Your task to perform on an android device: turn notification dots off Image 0: 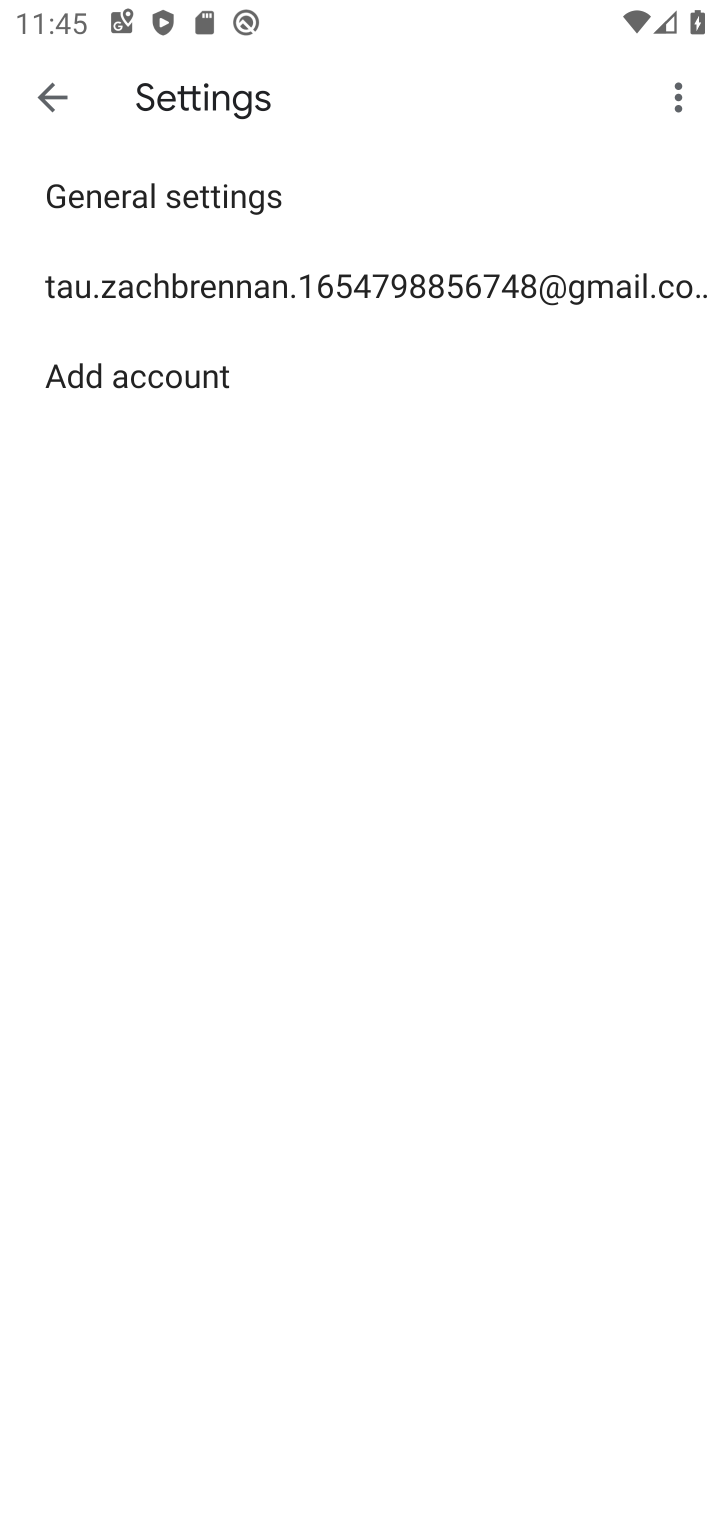
Step 0: press home button
Your task to perform on an android device: turn notification dots off Image 1: 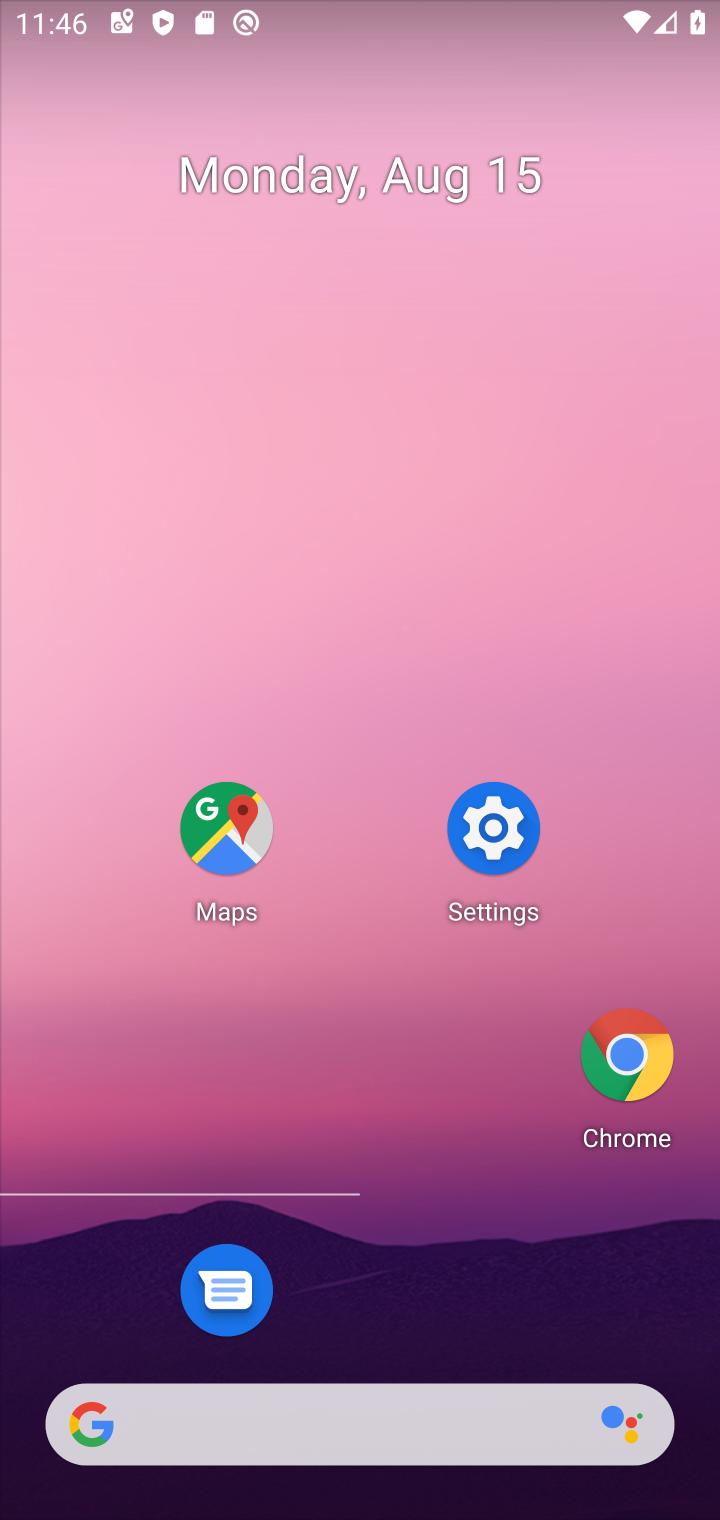
Step 1: click (498, 824)
Your task to perform on an android device: turn notification dots off Image 2: 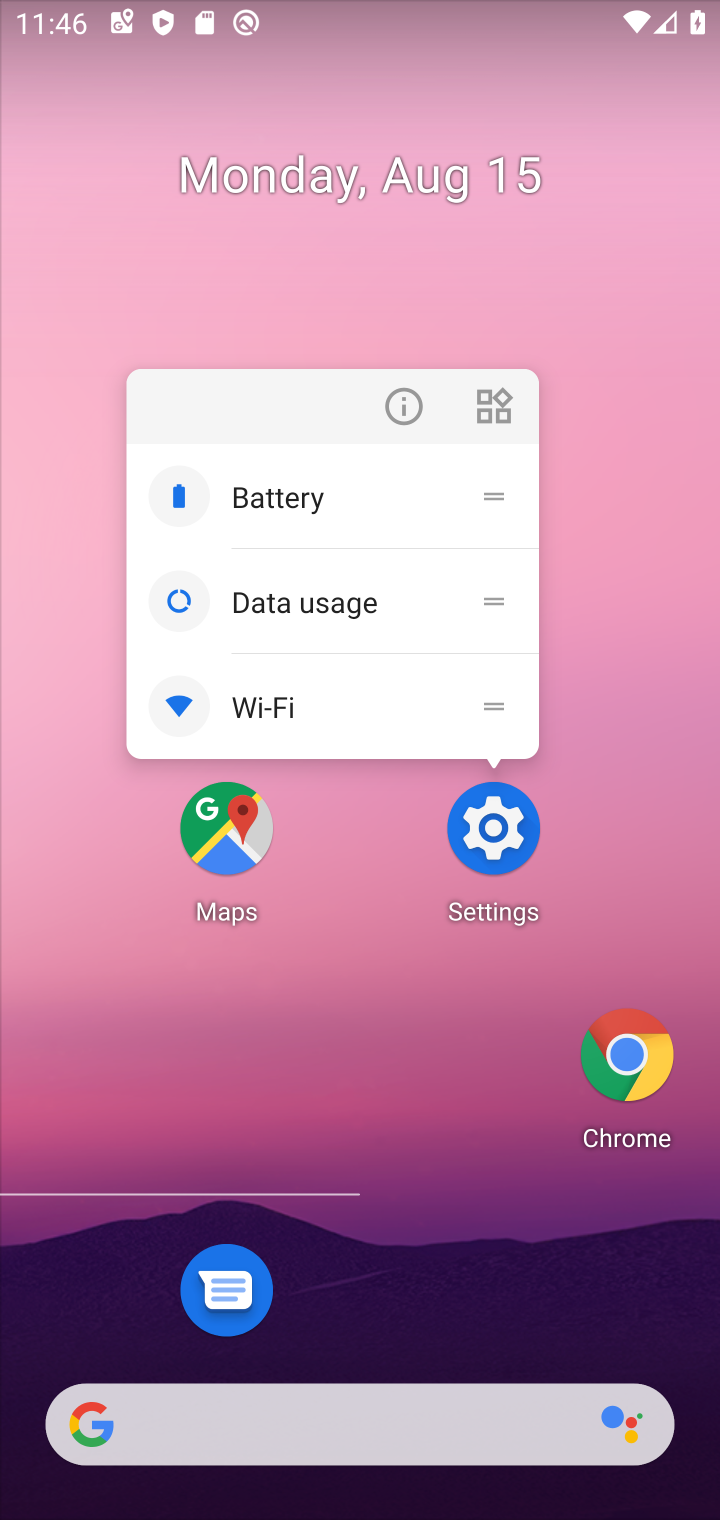
Step 2: click (500, 835)
Your task to perform on an android device: turn notification dots off Image 3: 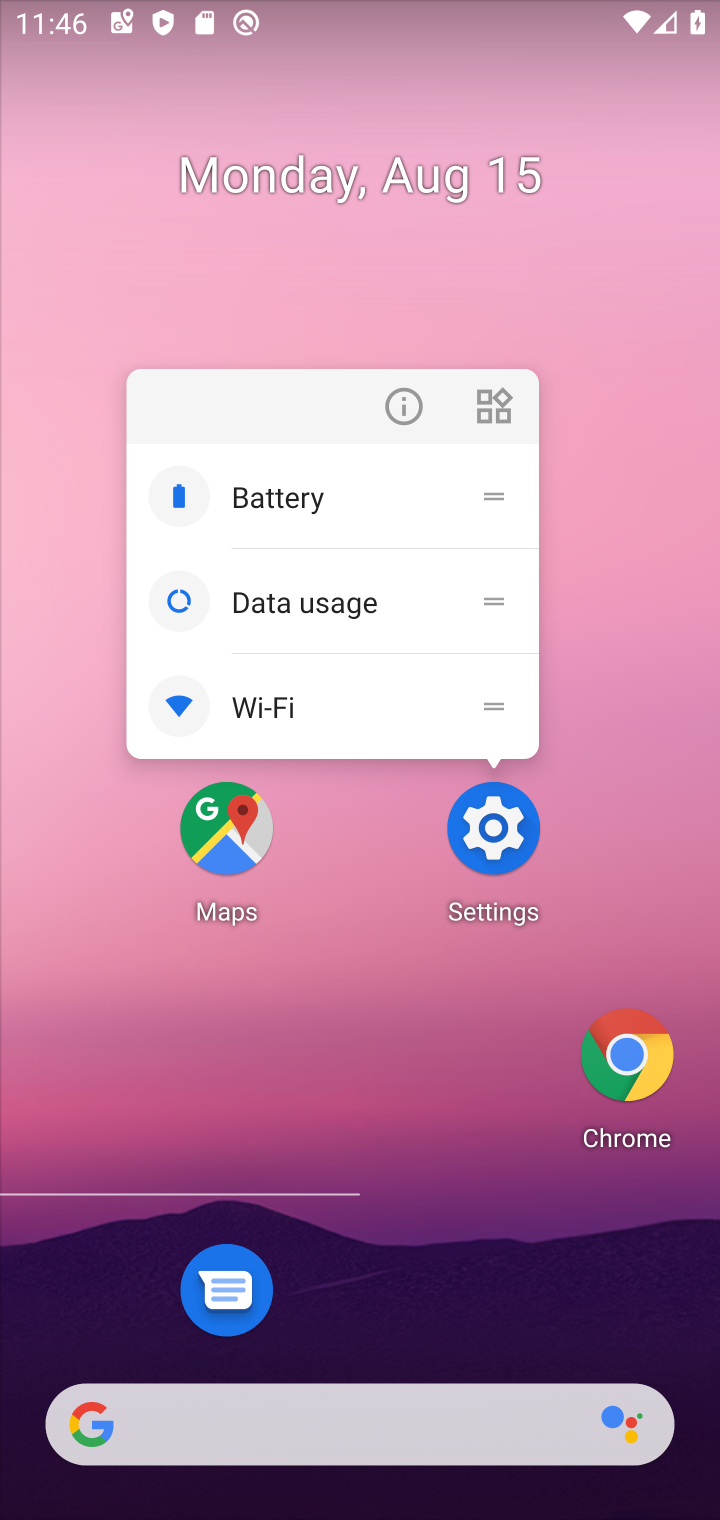
Step 3: click (500, 835)
Your task to perform on an android device: turn notification dots off Image 4: 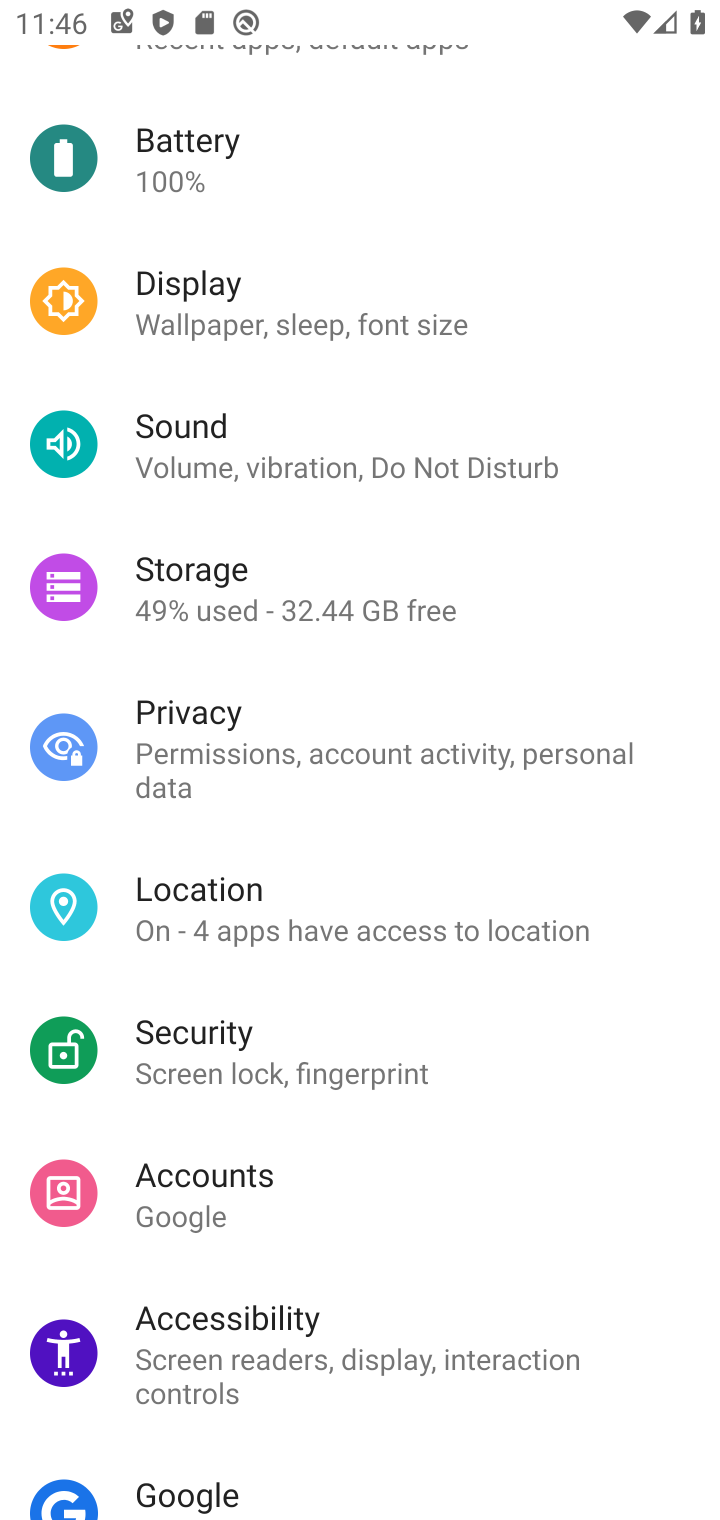
Step 4: drag from (566, 236) to (615, 1308)
Your task to perform on an android device: turn notification dots off Image 5: 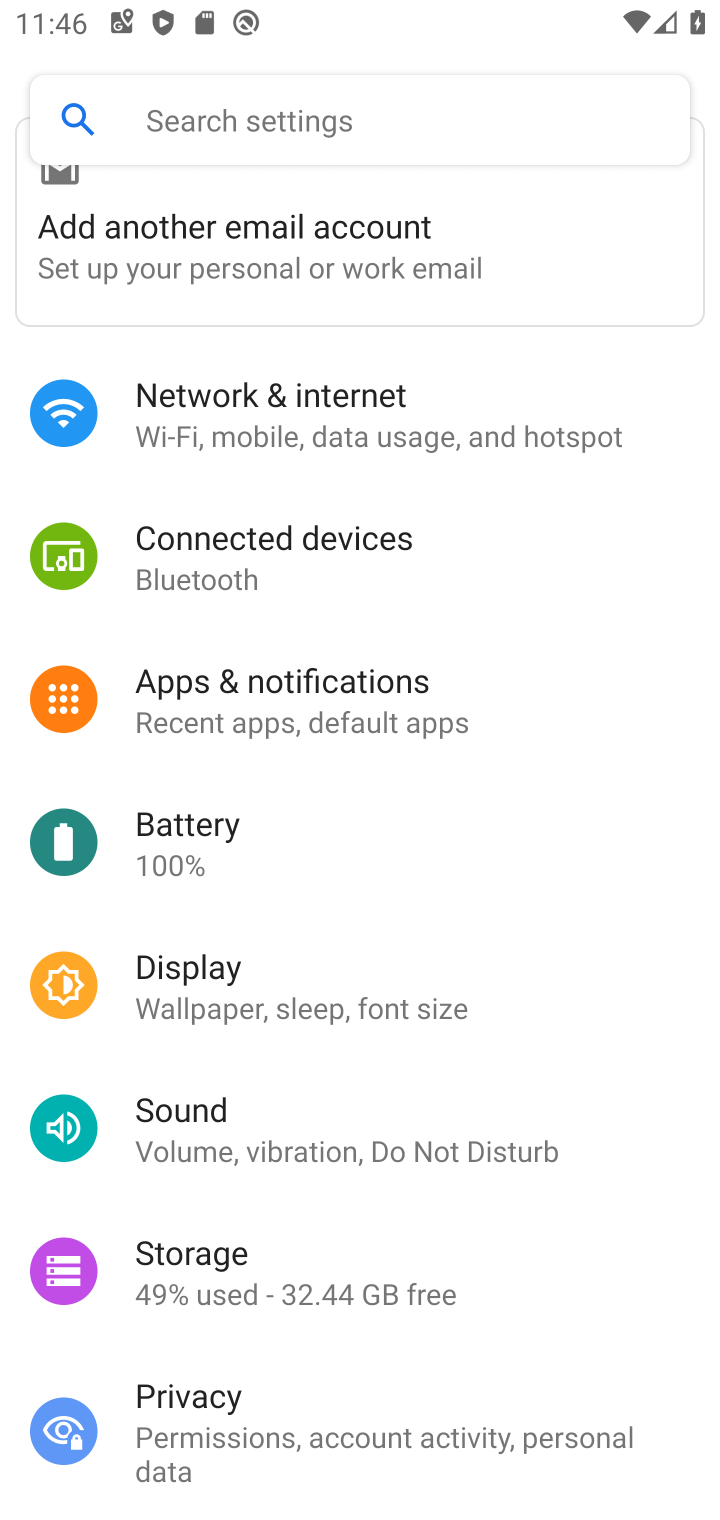
Step 5: click (367, 700)
Your task to perform on an android device: turn notification dots off Image 6: 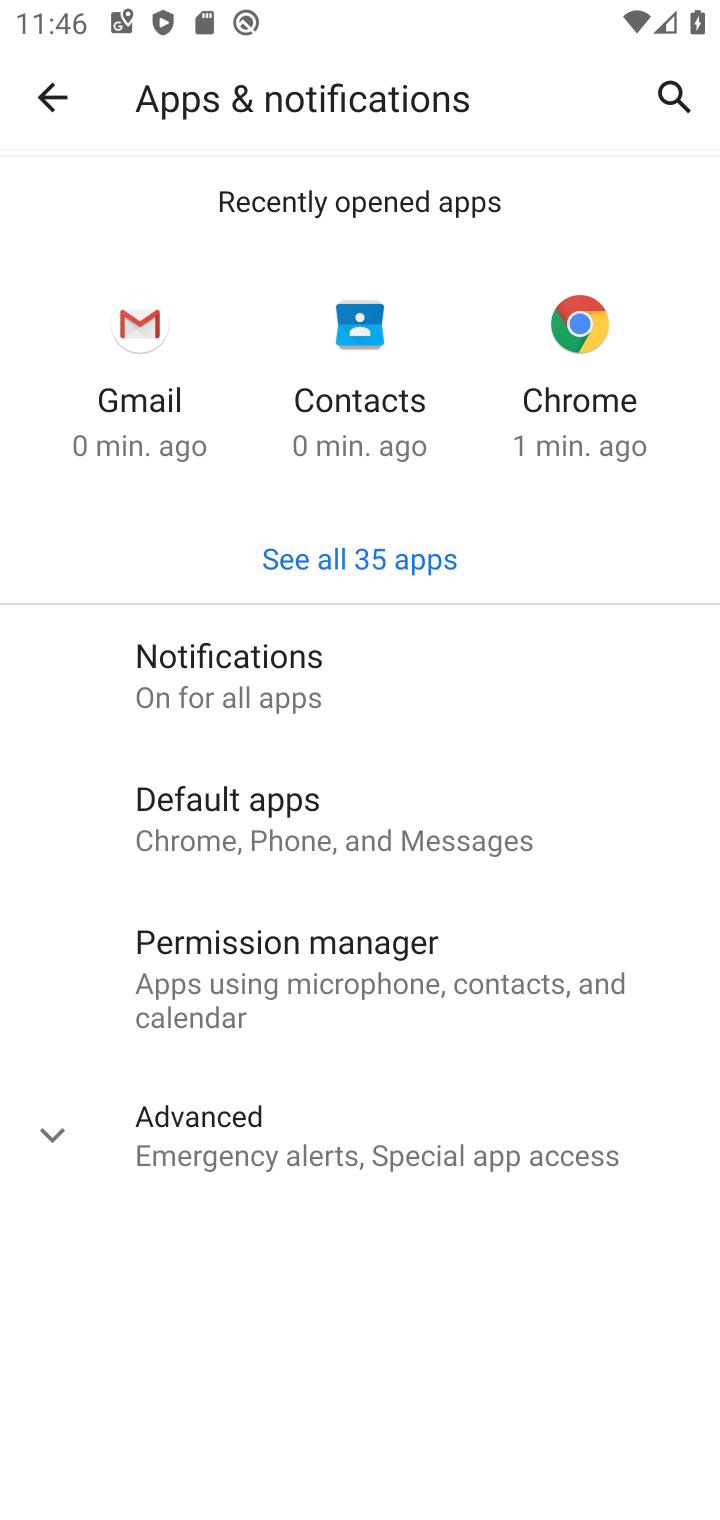
Step 6: click (263, 649)
Your task to perform on an android device: turn notification dots off Image 7: 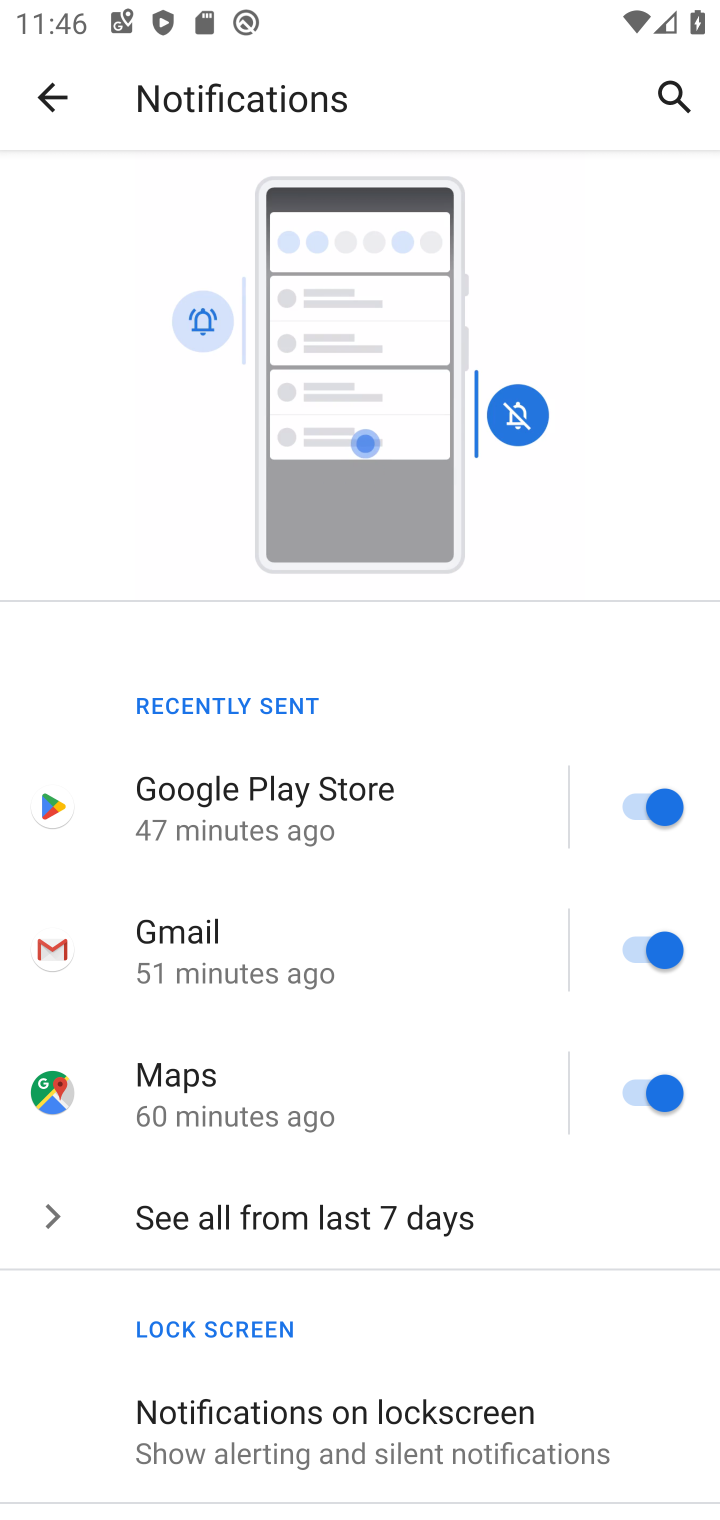
Step 7: drag from (452, 1379) to (484, 334)
Your task to perform on an android device: turn notification dots off Image 8: 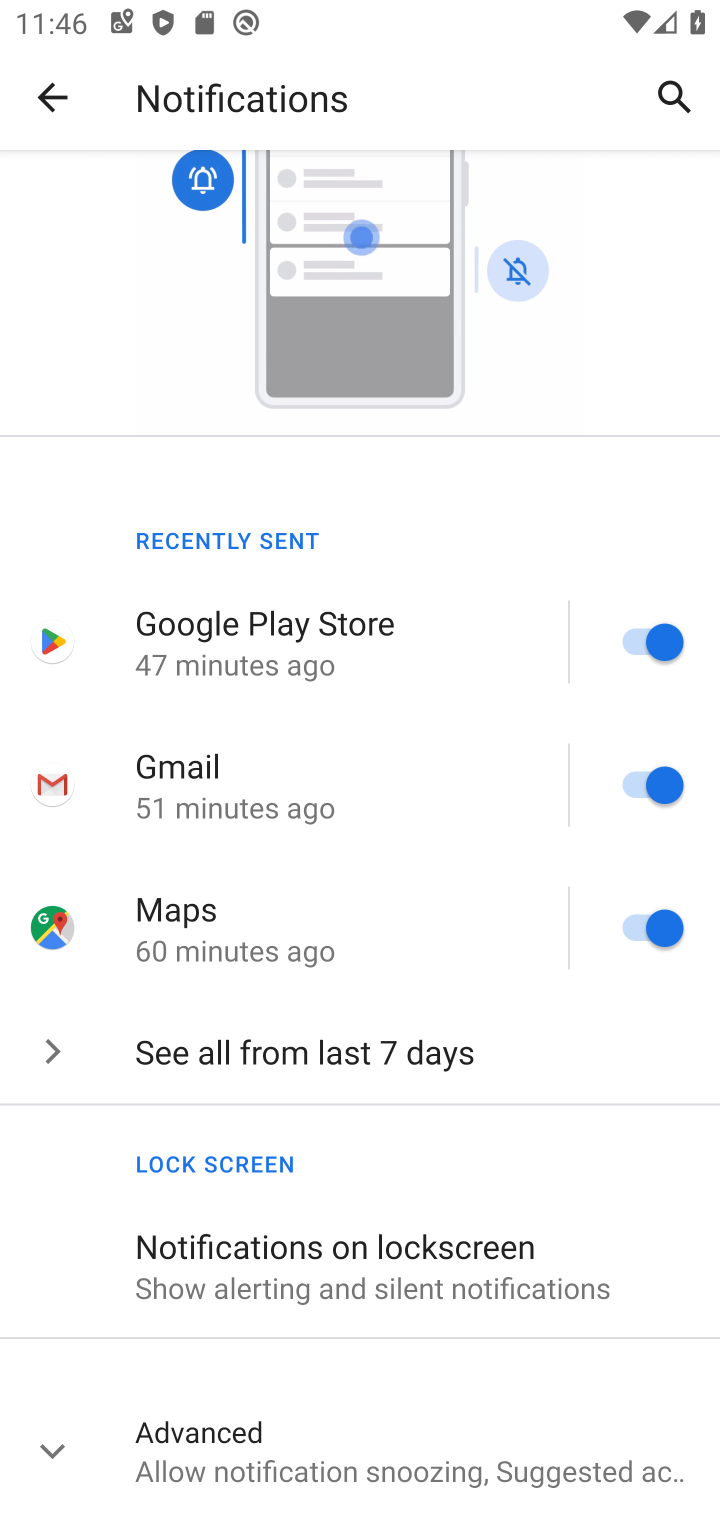
Step 8: click (316, 1430)
Your task to perform on an android device: turn notification dots off Image 9: 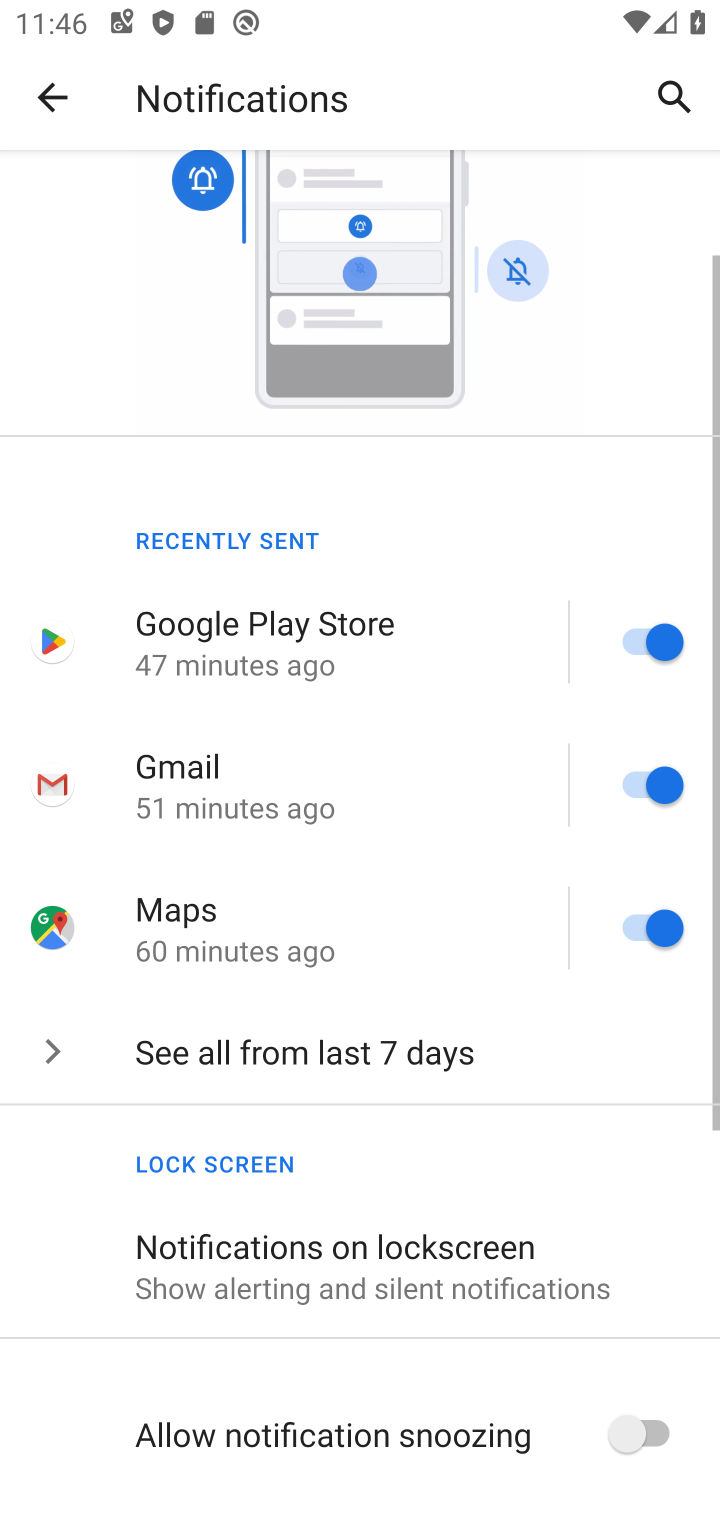
Step 9: drag from (517, 1366) to (625, 337)
Your task to perform on an android device: turn notification dots off Image 10: 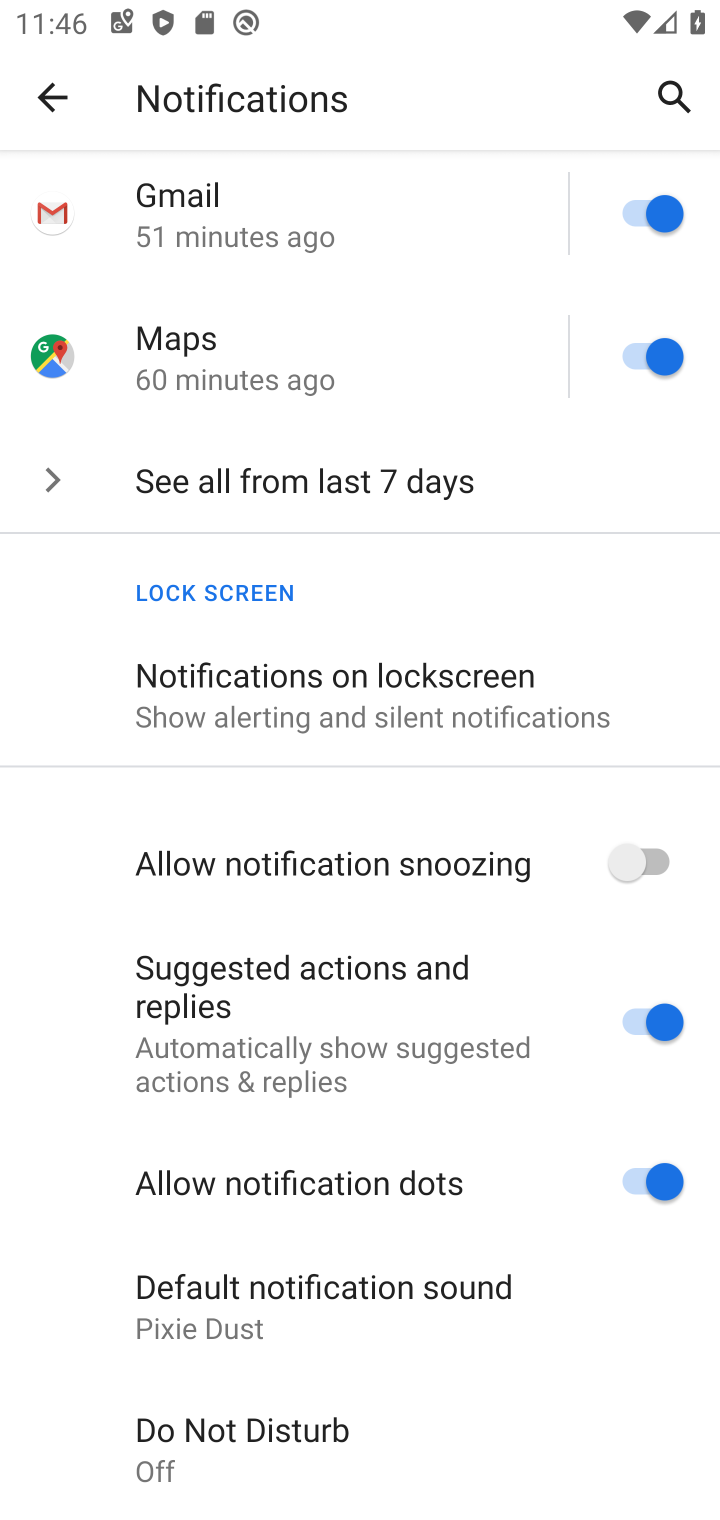
Step 10: click (632, 1181)
Your task to perform on an android device: turn notification dots off Image 11: 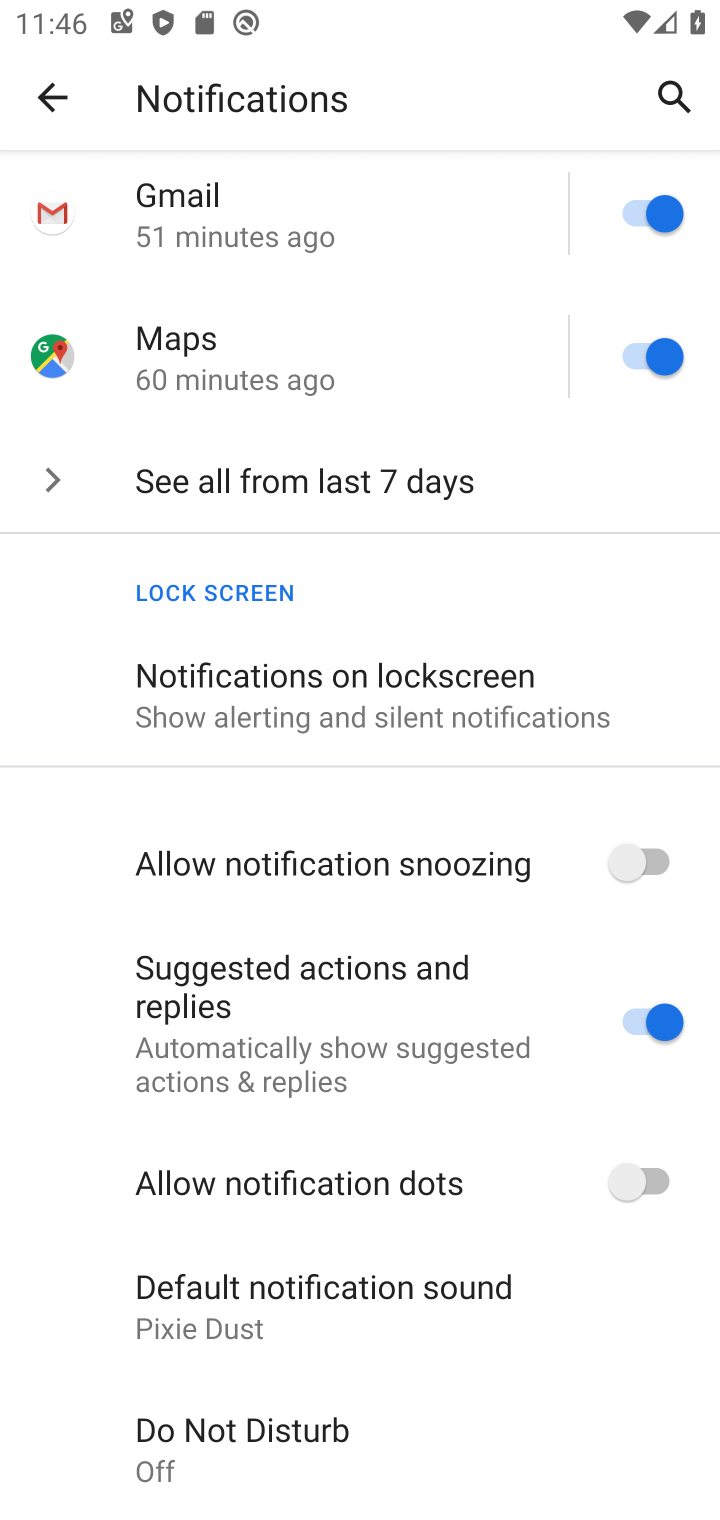
Step 11: task complete